Your task to perform on an android device: Go to eBay Image 0: 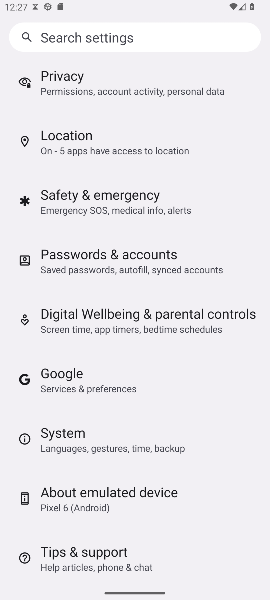
Step 0: press home button
Your task to perform on an android device: Go to eBay Image 1: 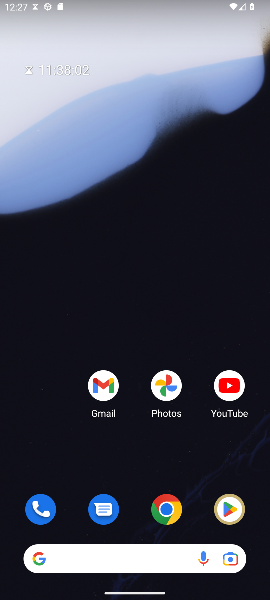
Step 1: drag from (143, 526) to (153, 71)
Your task to perform on an android device: Go to eBay Image 2: 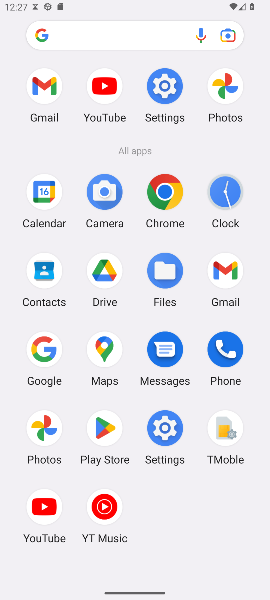
Step 2: click (42, 357)
Your task to perform on an android device: Go to eBay Image 3: 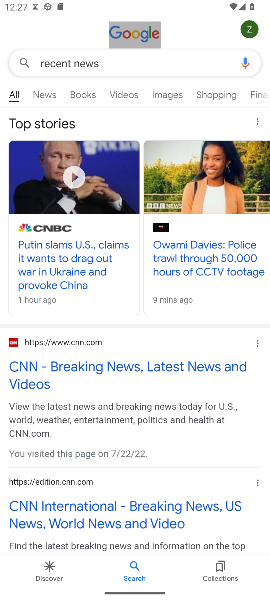
Step 3: press back button
Your task to perform on an android device: Go to eBay Image 4: 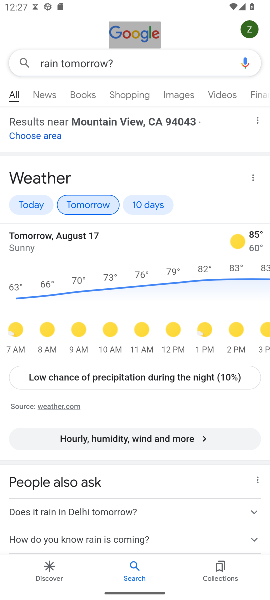
Step 4: press back button
Your task to perform on an android device: Go to eBay Image 5: 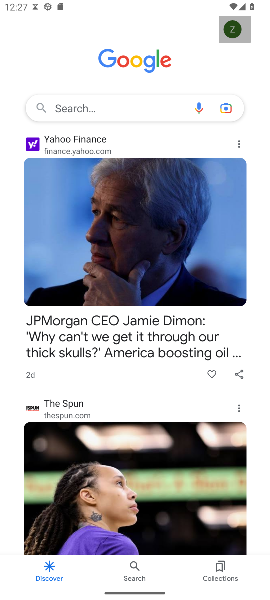
Step 5: click (153, 107)
Your task to perform on an android device: Go to eBay Image 6: 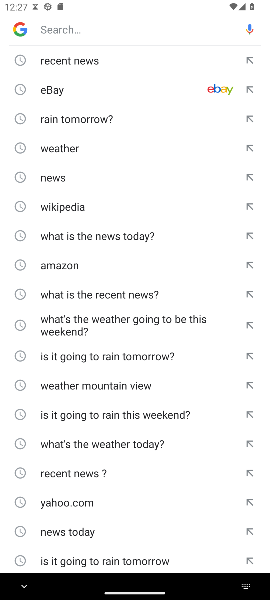
Step 6: type "eBay"
Your task to perform on an android device: Go to eBay Image 7: 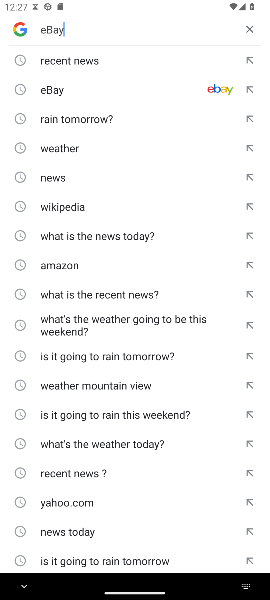
Step 7: press enter
Your task to perform on an android device: Go to eBay Image 8: 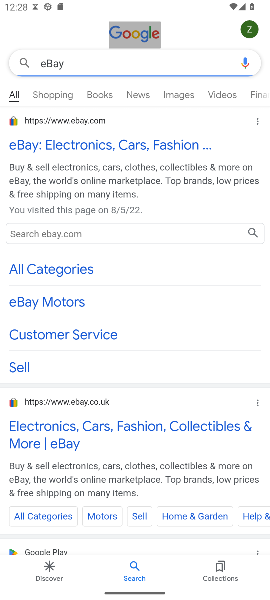
Step 8: click (98, 147)
Your task to perform on an android device: Go to eBay Image 9: 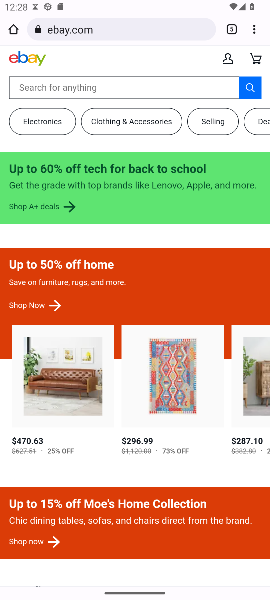
Step 9: task complete